Your task to perform on an android device: Open settings on Google Maps Image 0: 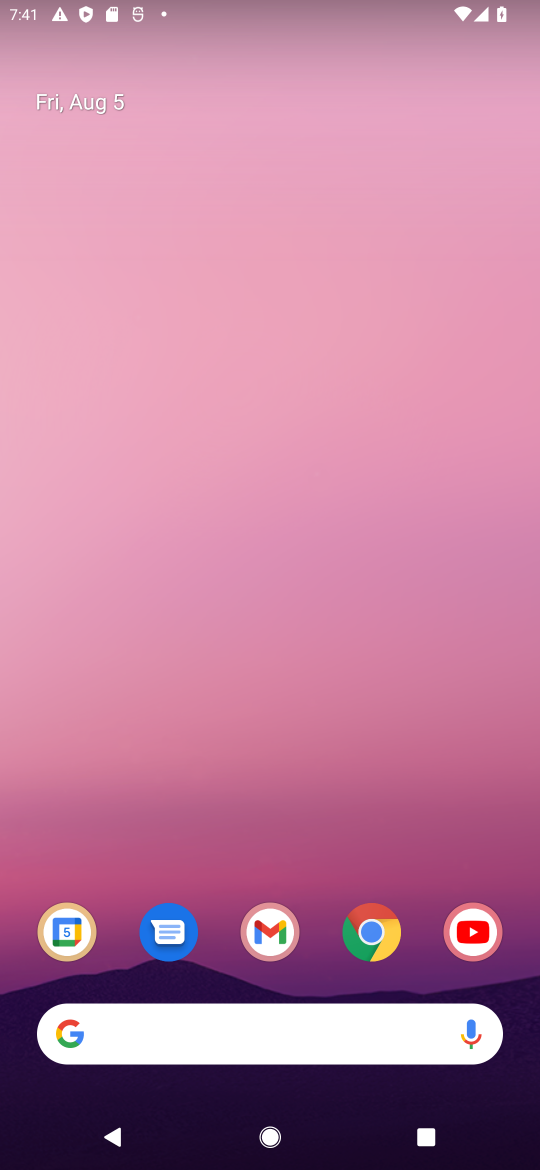
Step 0: drag from (128, 1056) to (342, 15)
Your task to perform on an android device: Open settings on Google Maps Image 1: 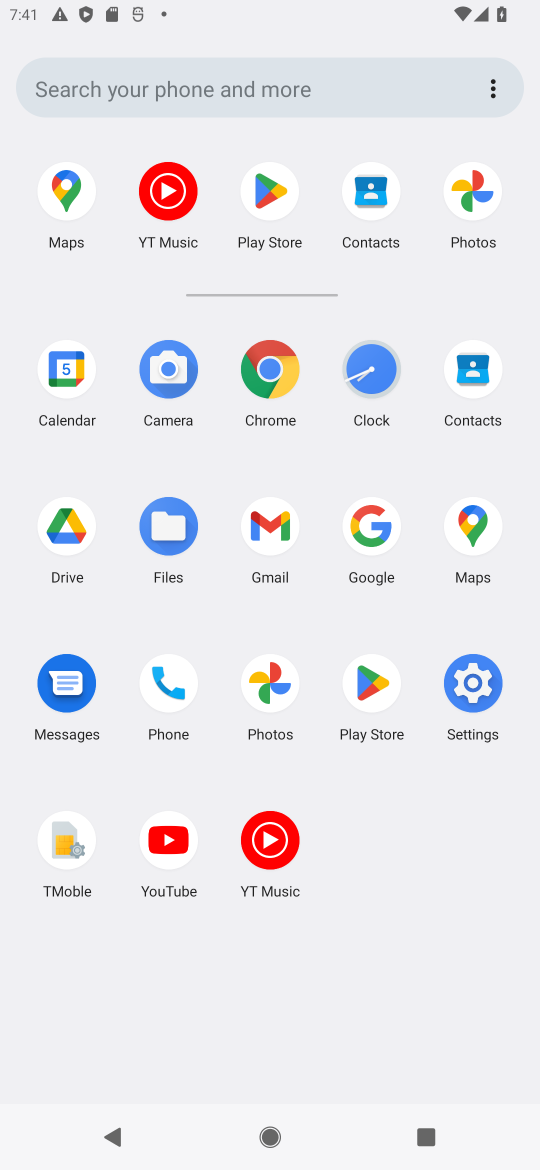
Step 1: click (70, 192)
Your task to perform on an android device: Open settings on Google Maps Image 2: 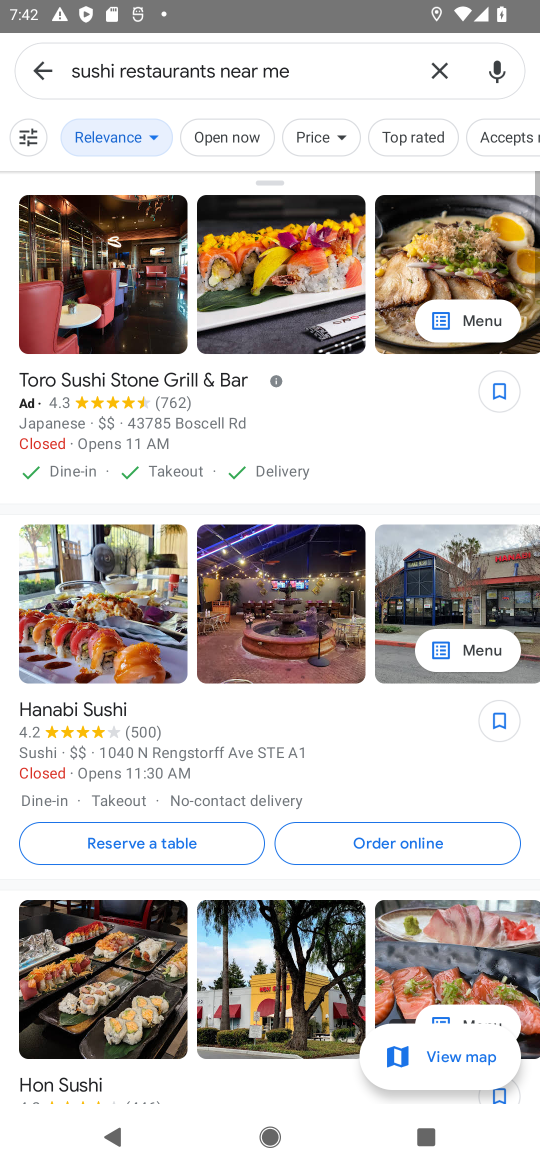
Step 2: press back button
Your task to perform on an android device: Open settings on Google Maps Image 3: 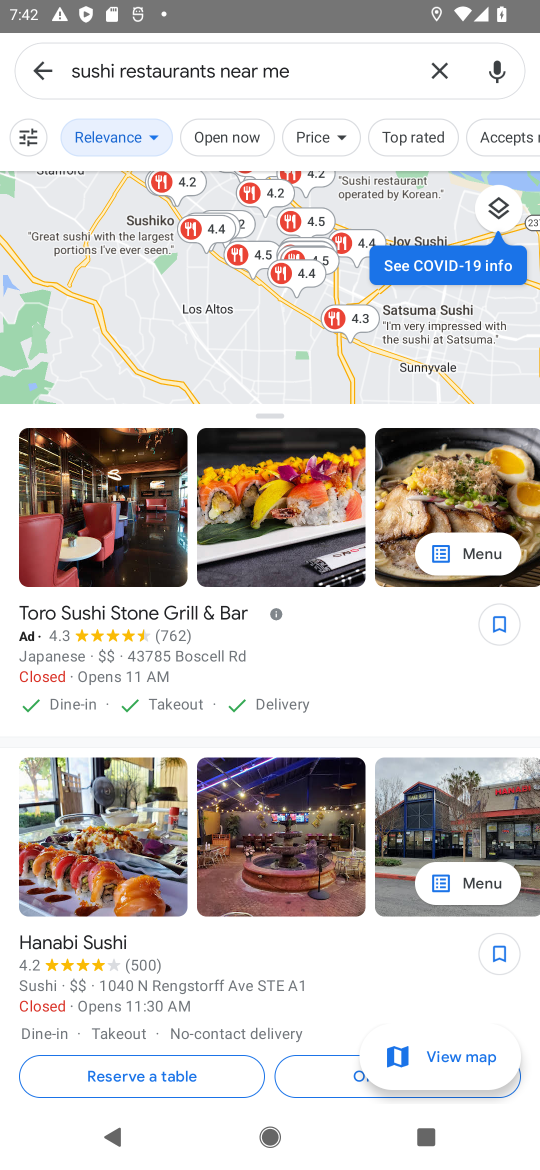
Step 3: press back button
Your task to perform on an android device: Open settings on Google Maps Image 4: 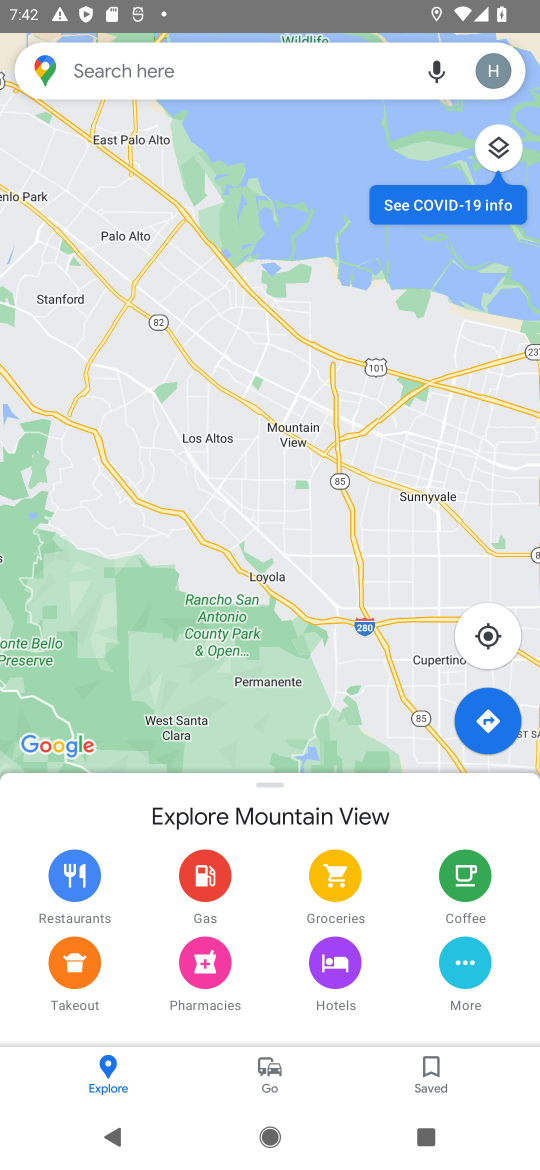
Step 4: click (508, 75)
Your task to perform on an android device: Open settings on Google Maps Image 5: 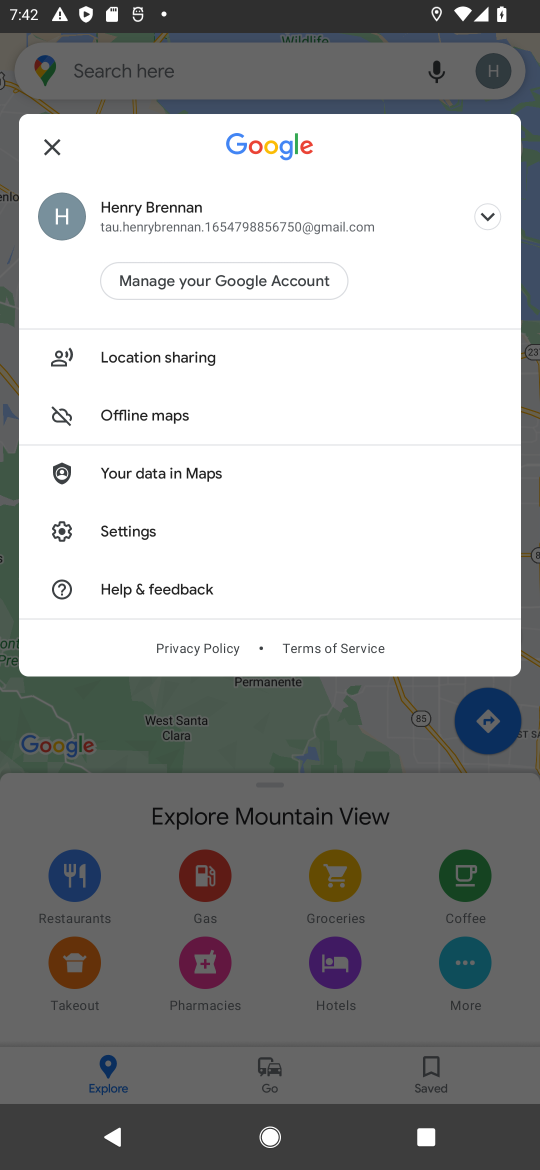
Step 5: click (125, 529)
Your task to perform on an android device: Open settings on Google Maps Image 6: 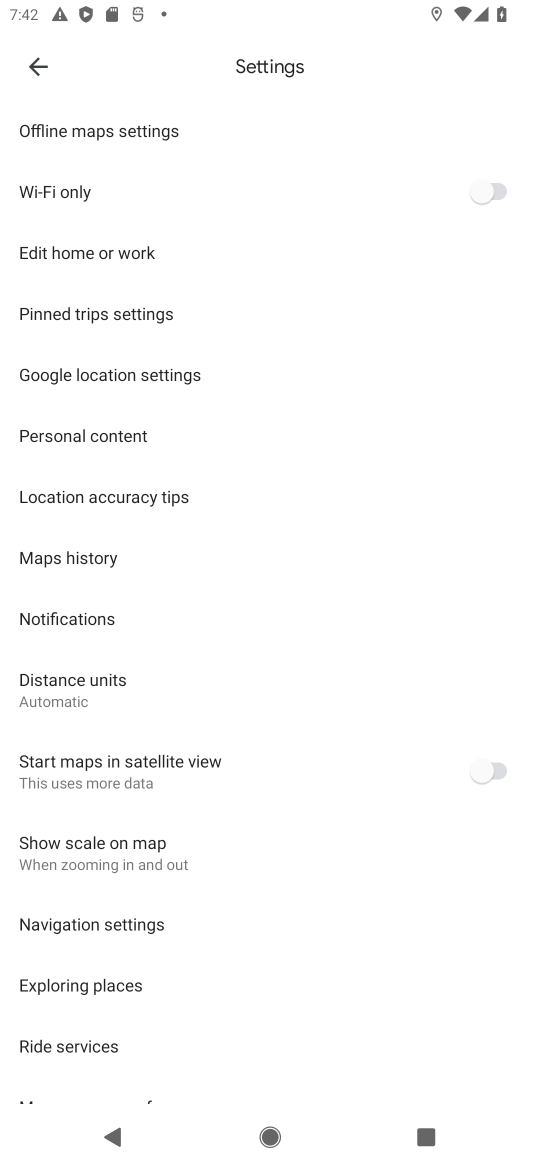
Step 6: task complete